Your task to perform on an android device: Turn off the flashlight Image 0: 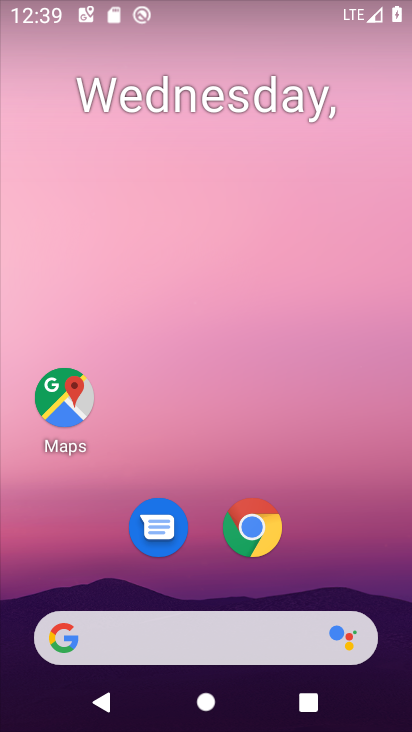
Step 0: drag from (375, 631) to (382, 26)
Your task to perform on an android device: Turn off the flashlight Image 1: 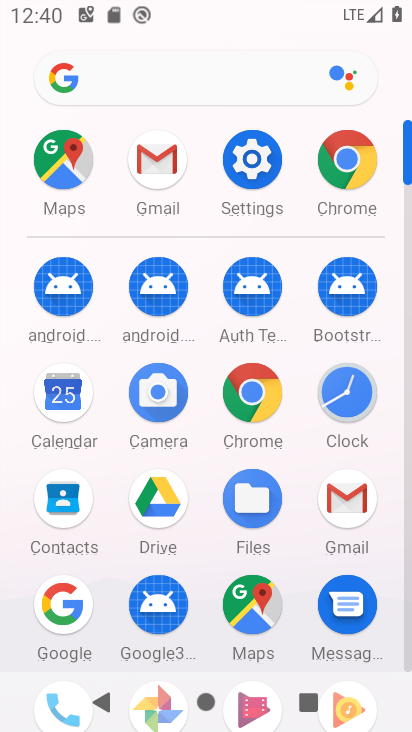
Step 1: task complete